Your task to perform on an android device: add a contact in the contacts app Image 0: 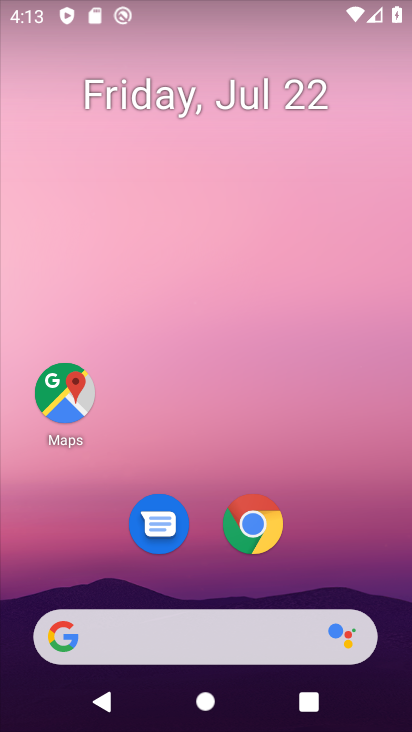
Step 0: drag from (317, 490) to (319, 49)
Your task to perform on an android device: add a contact in the contacts app Image 1: 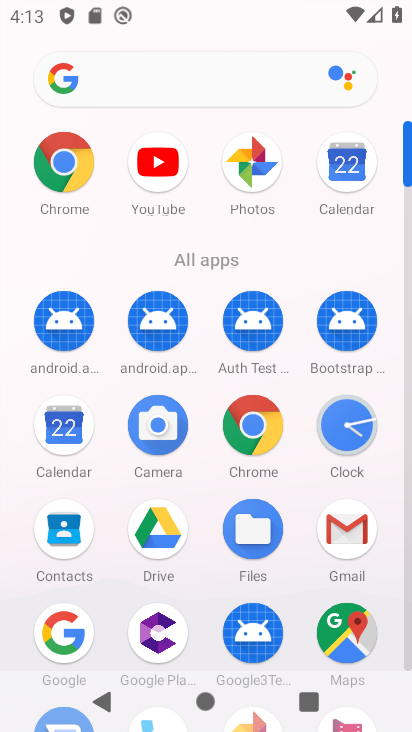
Step 1: click (65, 533)
Your task to perform on an android device: add a contact in the contacts app Image 2: 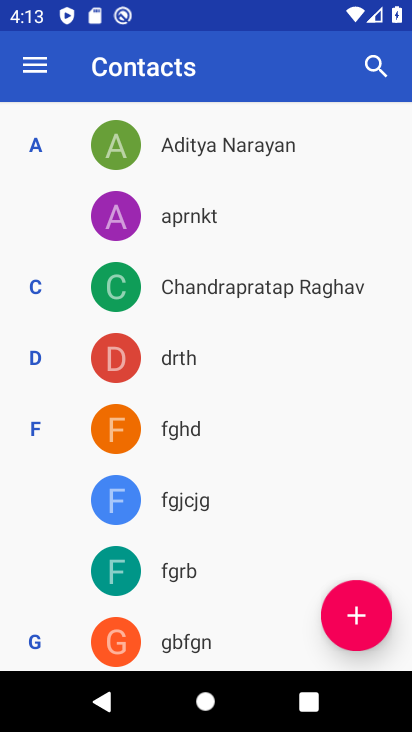
Step 2: drag from (258, 524) to (295, 127)
Your task to perform on an android device: add a contact in the contacts app Image 3: 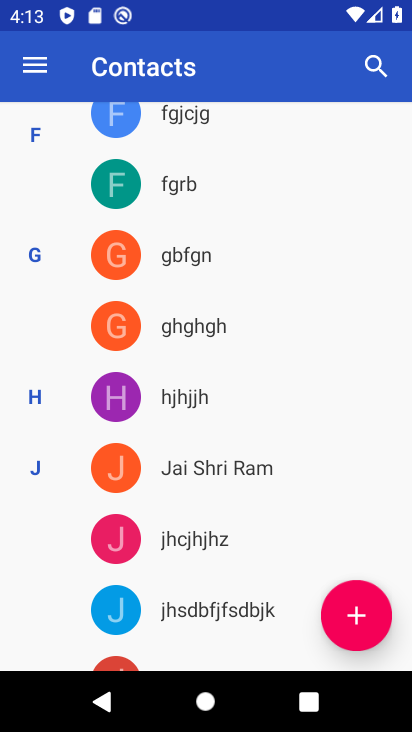
Step 3: drag from (242, 515) to (256, 159)
Your task to perform on an android device: add a contact in the contacts app Image 4: 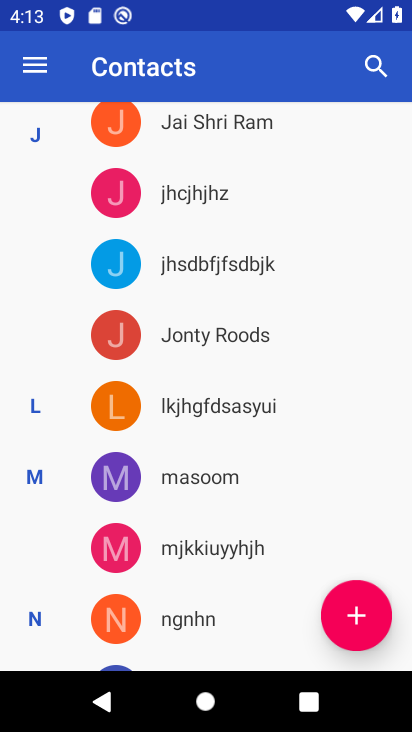
Step 4: drag from (234, 586) to (269, 181)
Your task to perform on an android device: add a contact in the contacts app Image 5: 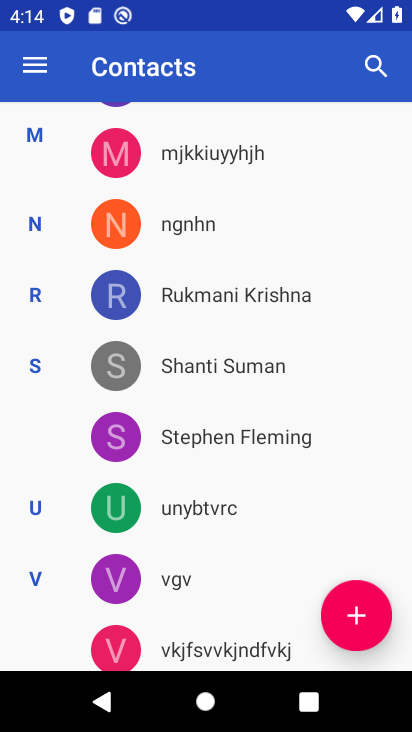
Step 5: drag from (215, 575) to (259, 265)
Your task to perform on an android device: add a contact in the contacts app Image 6: 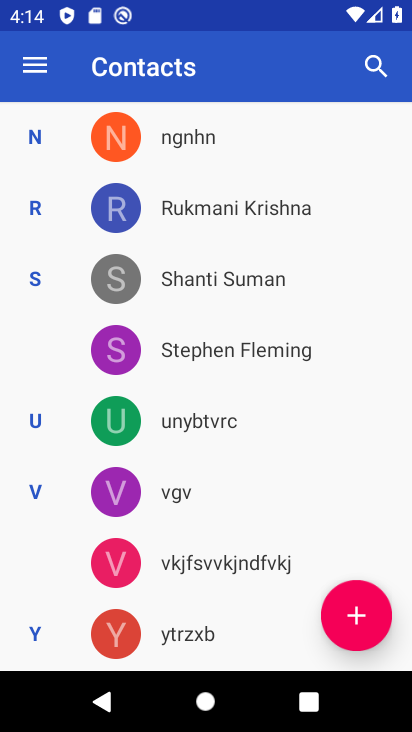
Step 6: click (370, 609)
Your task to perform on an android device: add a contact in the contacts app Image 7: 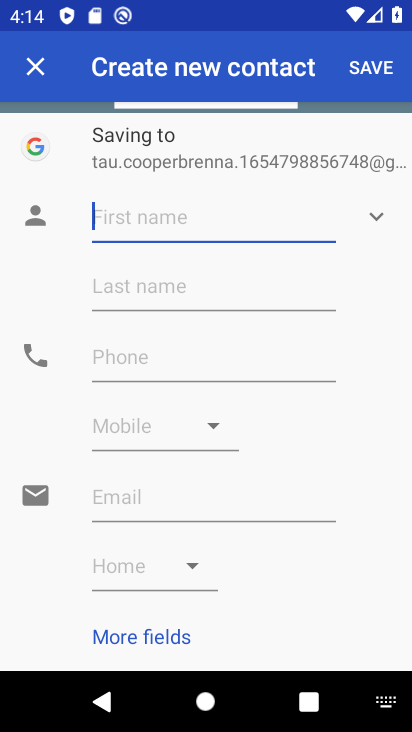
Step 7: type "Atman"
Your task to perform on an android device: add a contact in the contacts app Image 8: 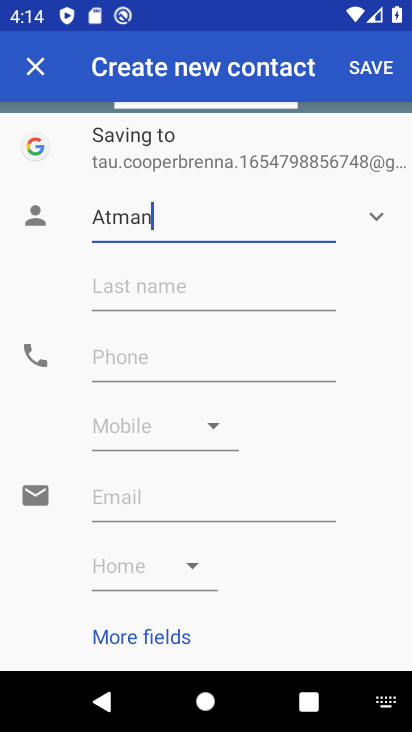
Step 8: click (168, 368)
Your task to perform on an android device: add a contact in the contacts app Image 9: 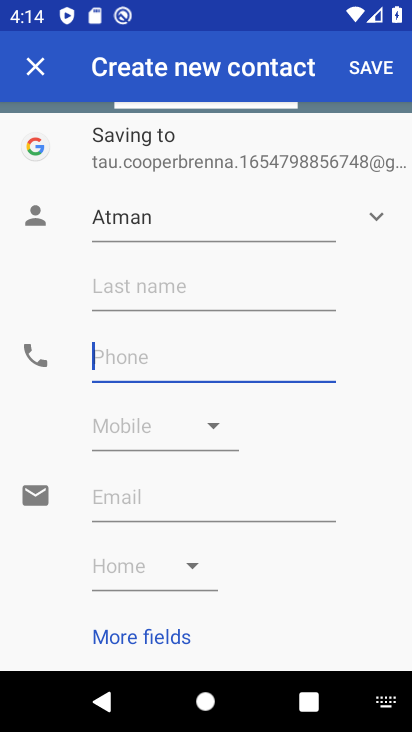
Step 9: type "+9199977553311"
Your task to perform on an android device: add a contact in the contacts app Image 10: 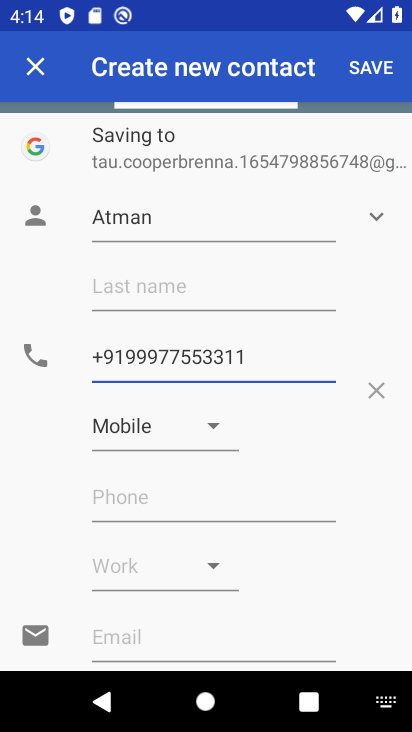
Step 10: click (369, 65)
Your task to perform on an android device: add a contact in the contacts app Image 11: 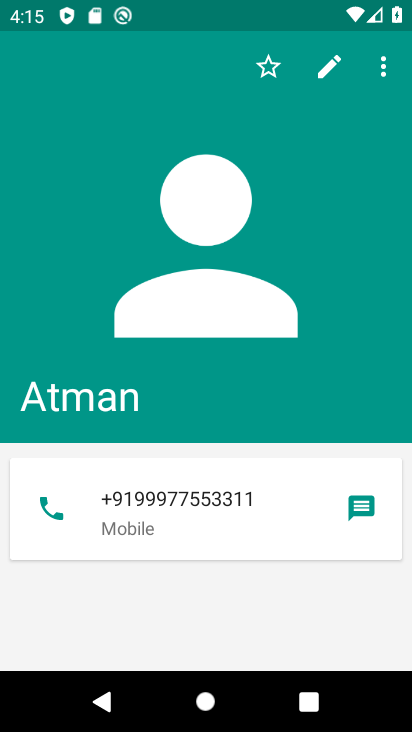
Step 11: task complete